Your task to perform on an android device: Go to Wikipedia Image 0: 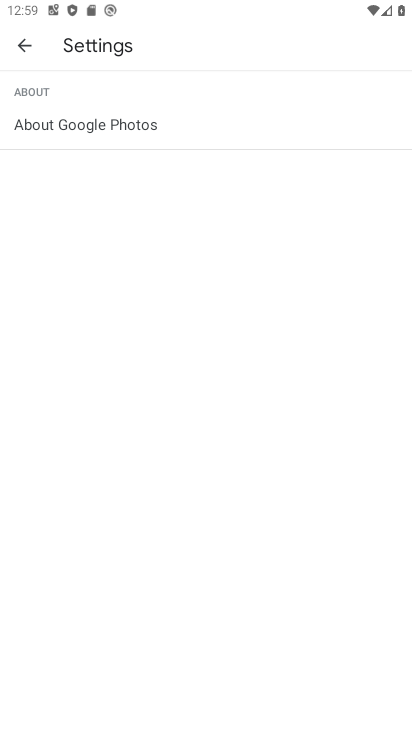
Step 0: press home button
Your task to perform on an android device: Go to Wikipedia Image 1: 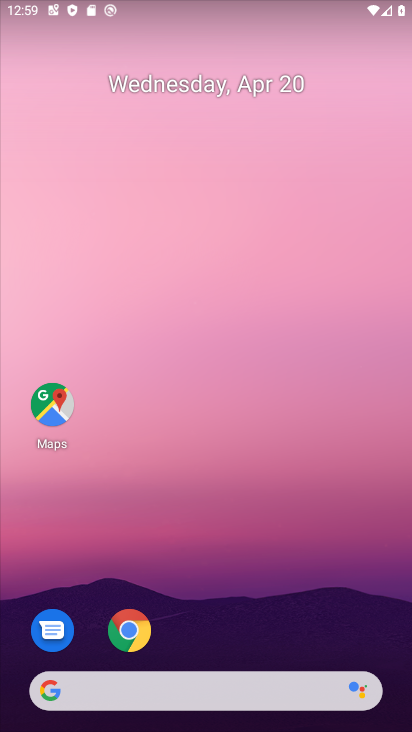
Step 1: drag from (335, 454) to (320, 164)
Your task to perform on an android device: Go to Wikipedia Image 2: 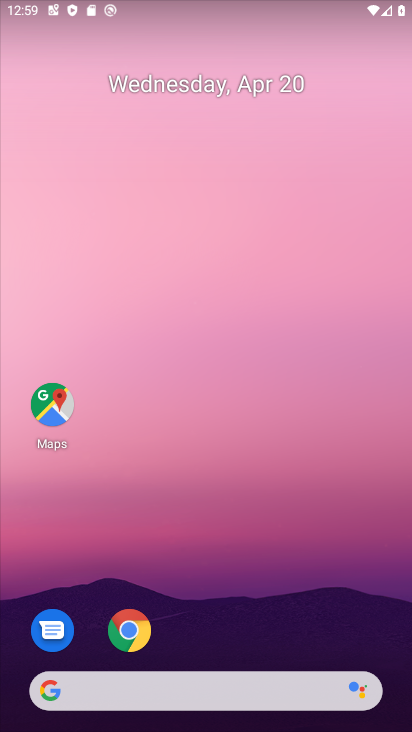
Step 2: drag from (337, 441) to (305, 197)
Your task to perform on an android device: Go to Wikipedia Image 3: 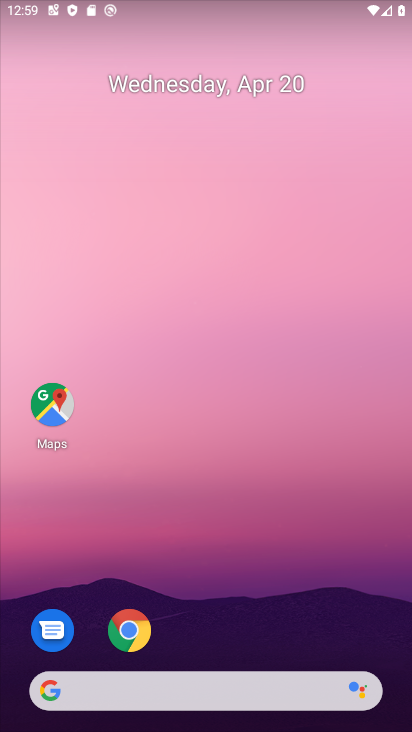
Step 3: drag from (398, 619) to (320, 163)
Your task to perform on an android device: Go to Wikipedia Image 4: 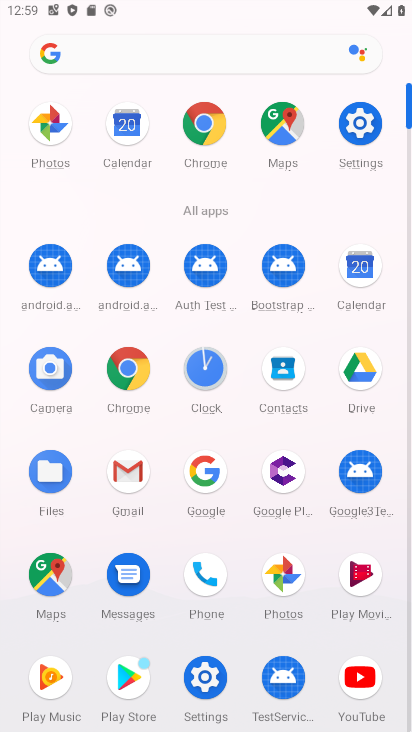
Step 4: click (201, 130)
Your task to perform on an android device: Go to Wikipedia Image 5: 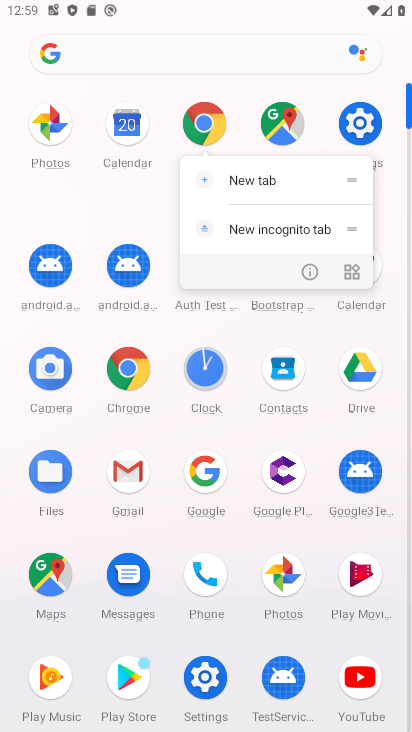
Step 5: click (224, 142)
Your task to perform on an android device: Go to Wikipedia Image 6: 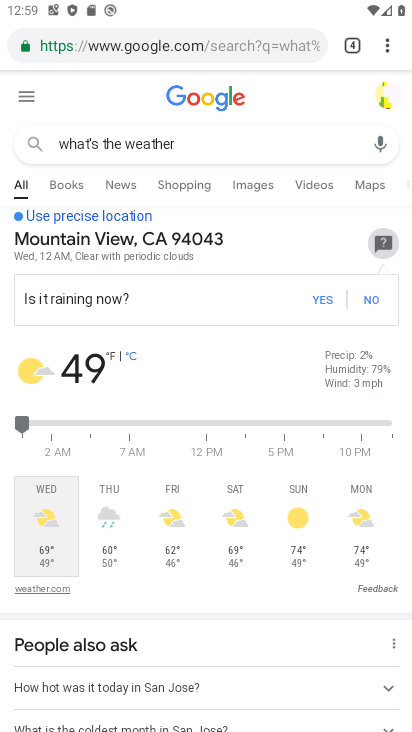
Step 6: click (188, 141)
Your task to perform on an android device: Go to Wikipedia Image 7: 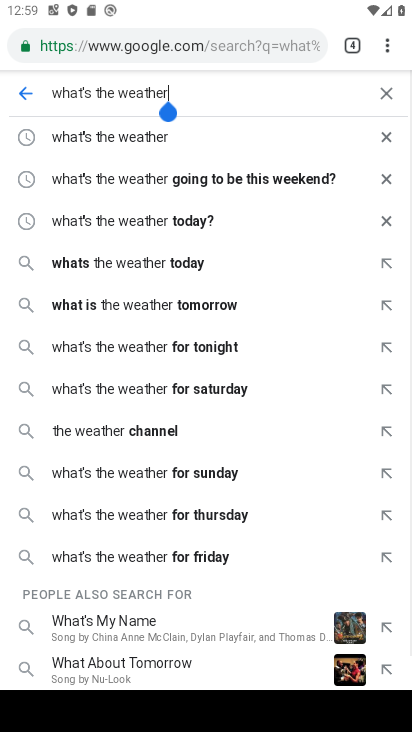
Step 7: click (224, 40)
Your task to perform on an android device: Go to Wikipedia Image 8: 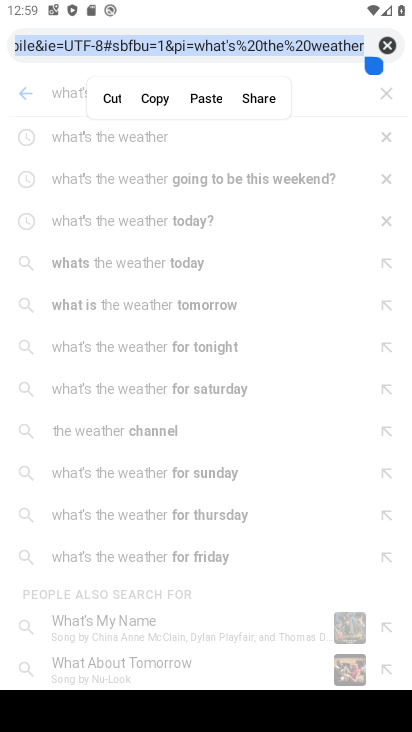
Step 8: click (393, 45)
Your task to perform on an android device: Go to Wikipedia Image 9: 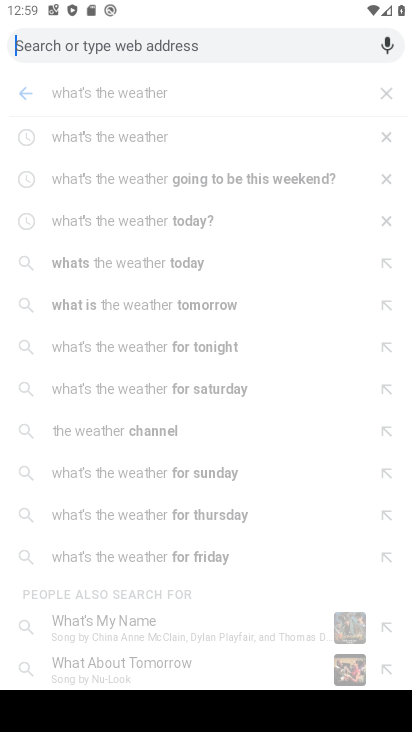
Step 9: type "wikipedia"
Your task to perform on an android device: Go to Wikipedia Image 10: 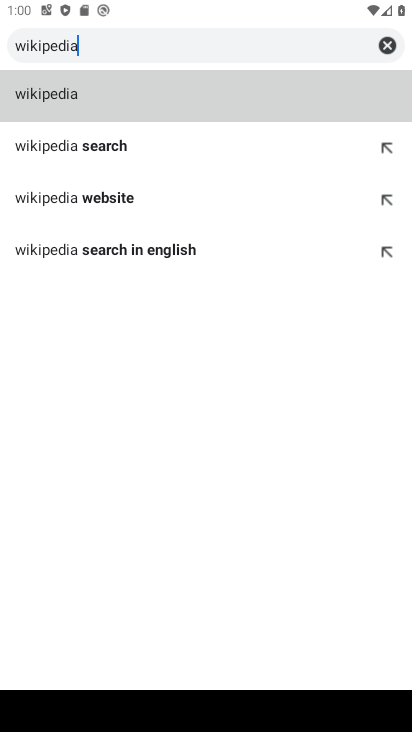
Step 10: click (90, 101)
Your task to perform on an android device: Go to Wikipedia Image 11: 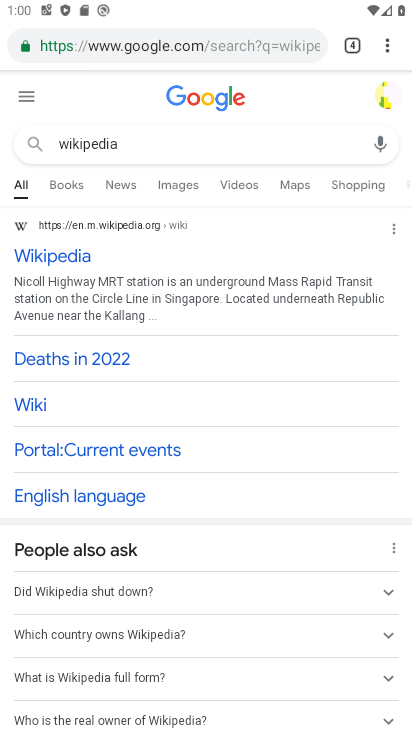
Step 11: click (30, 264)
Your task to perform on an android device: Go to Wikipedia Image 12: 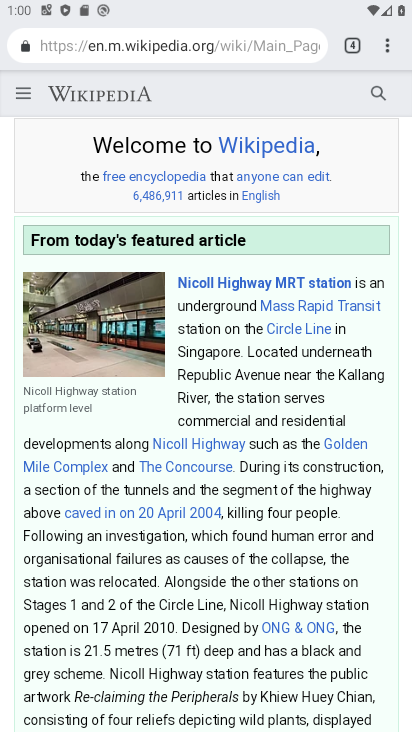
Step 12: task complete